Your task to perform on an android device: Open maps Image 0: 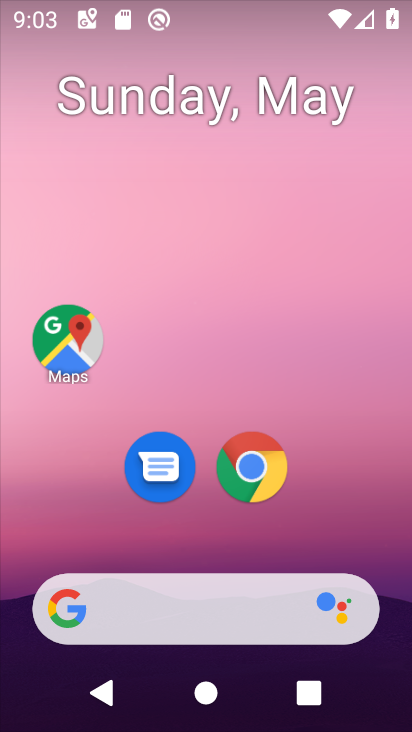
Step 0: drag from (345, 479) to (331, 117)
Your task to perform on an android device: Open maps Image 1: 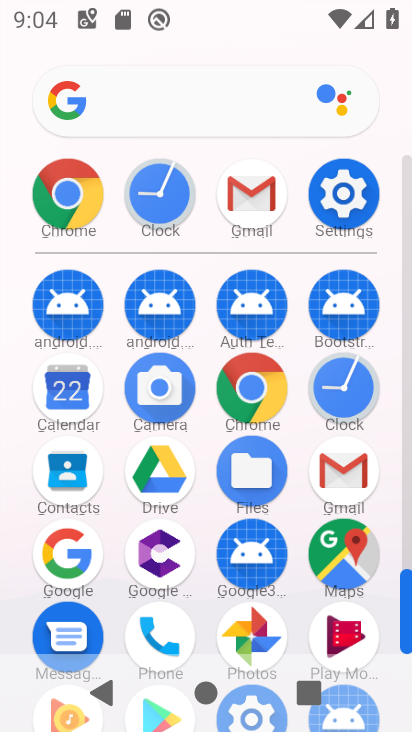
Step 1: click (336, 563)
Your task to perform on an android device: Open maps Image 2: 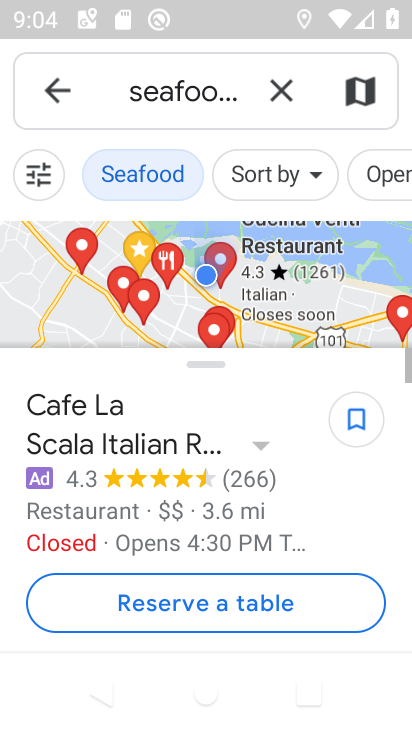
Step 2: click (284, 88)
Your task to perform on an android device: Open maps Image 3: 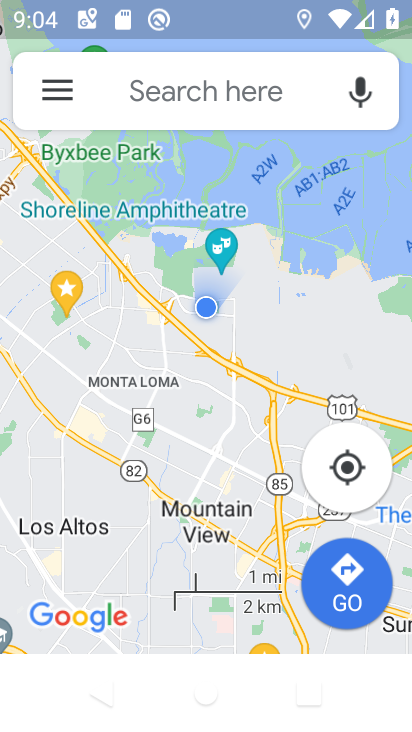
Step 3: click (241, 102)
Your task to perform on an android device: Open maps Image 4: 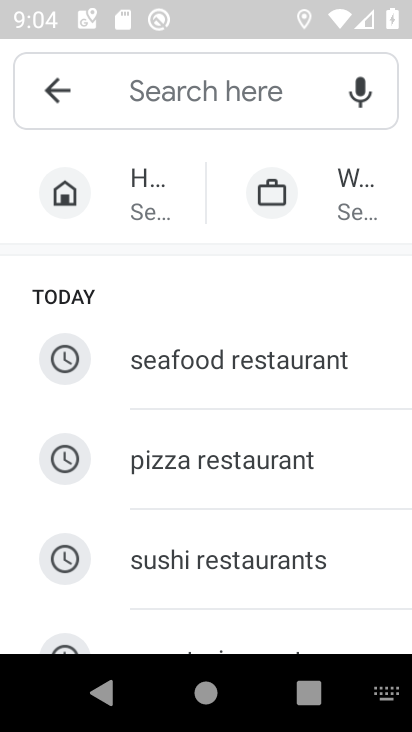
Step 4: click (33, 98)
Your task to perform on an android device: Open maps Image 5: 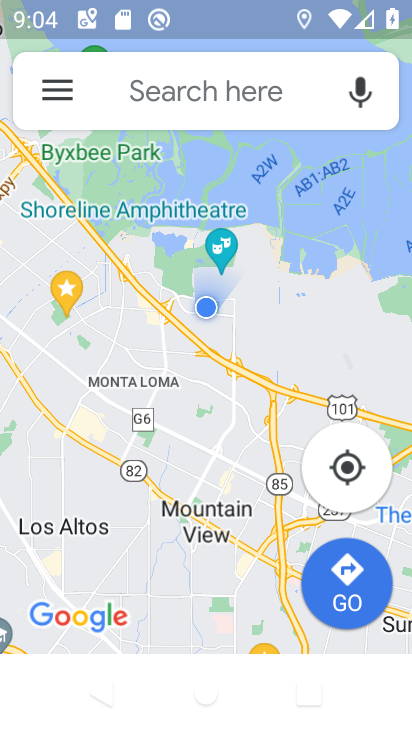
Step 5: task complete